Your task to perform on an android device: Go to Maps Image 0: 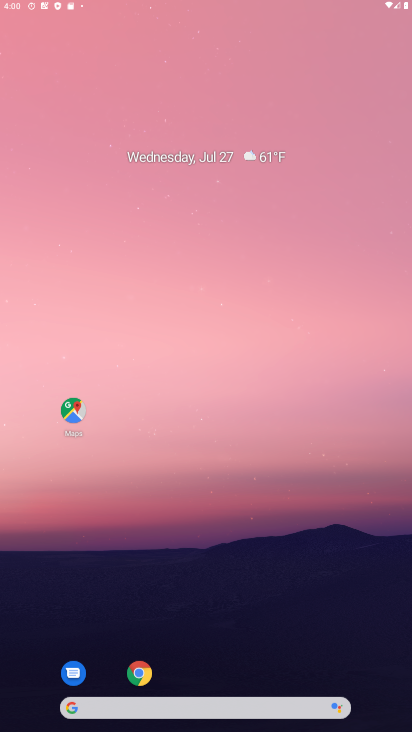
Step 0: click (411, 626)
Your task to perform on an android device: Go to Maps Image 1: 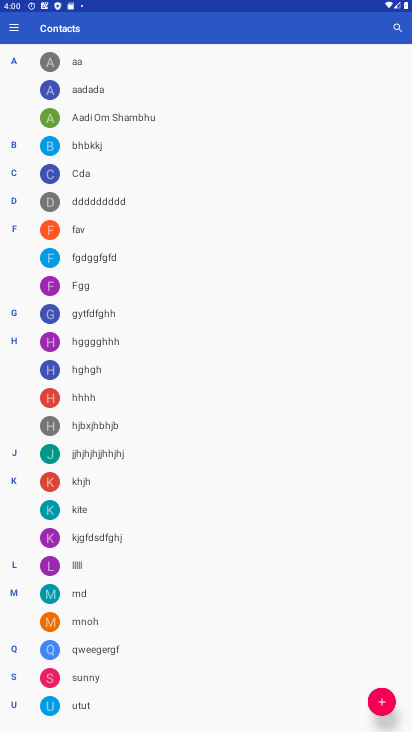
Step 1: press home button
Your task to perform on an android device: Go to Maps Image 2: 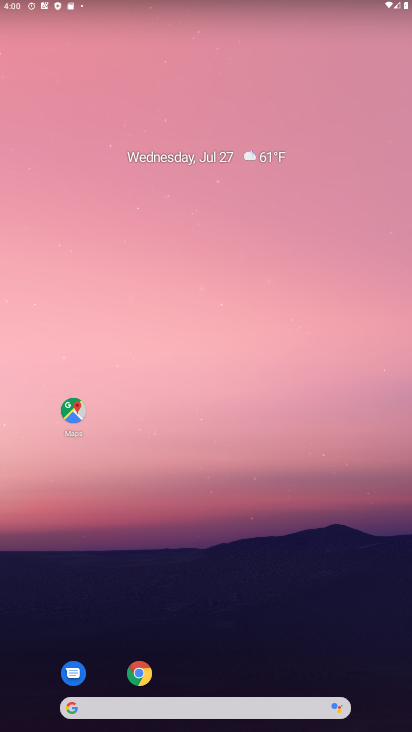
Step 2: click (72, 407)
Your task to perform on an android device: Go to Maps Image 3: 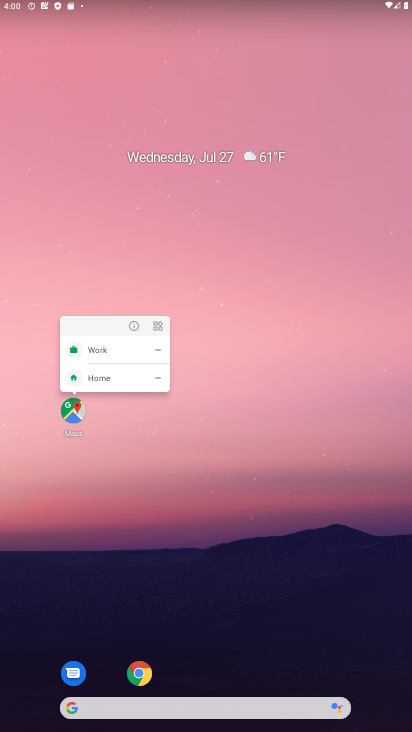
Step 3: click (76, 408)
Your task to perform on an android device: Go to Maps Image 4: 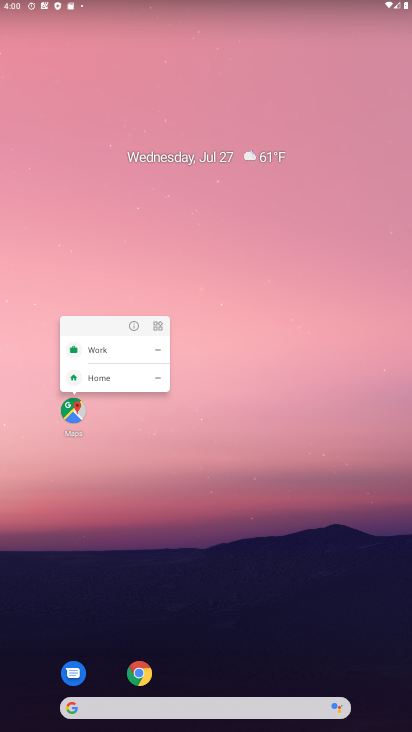
Step 4: click (83, 400)
Your task to perform on an android device: Go to Maps Image 5: 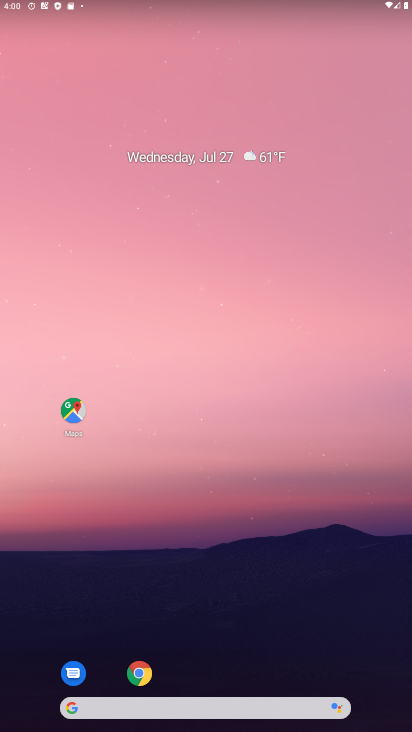
Step 5: click (68, 413)
Your task to perform on an android device: Go to Maps Image 6: 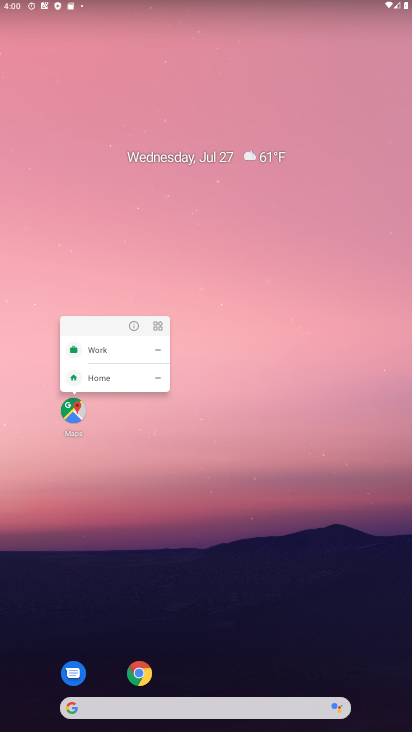
Step 6: click (69, 416)
Your task to perform on an android device: Go to Maps Image 7: 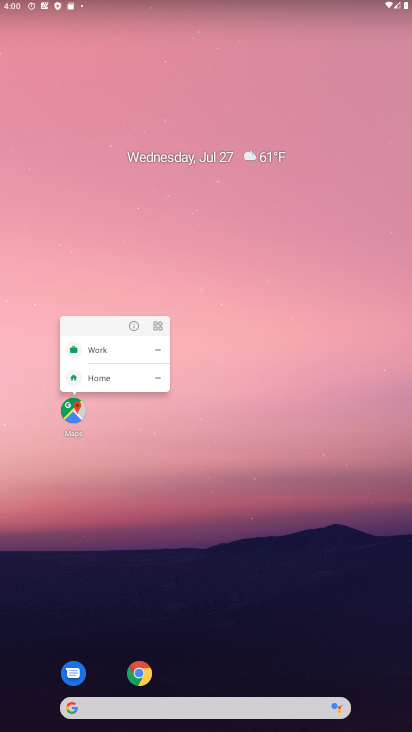
Step 7: task complete